Your task to perform on an android device: change the clock style Image 0: 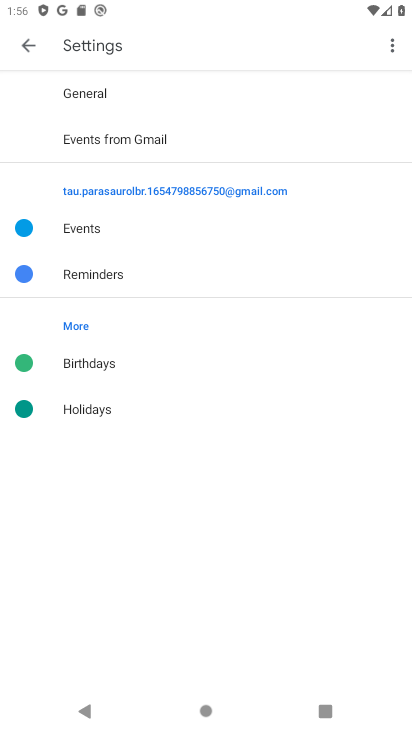
Step 0: click (27, 38)
Your task to perform on an android device: change the clock style Image 1: 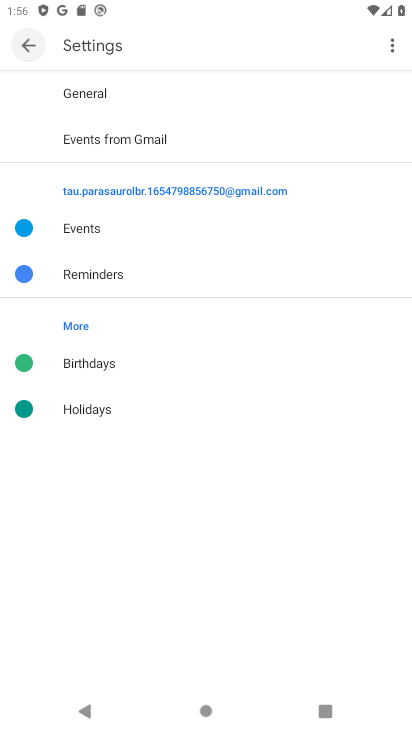
Step 1: click (32, 39)
Your task to perform on an android device: change the clock style Image 2: 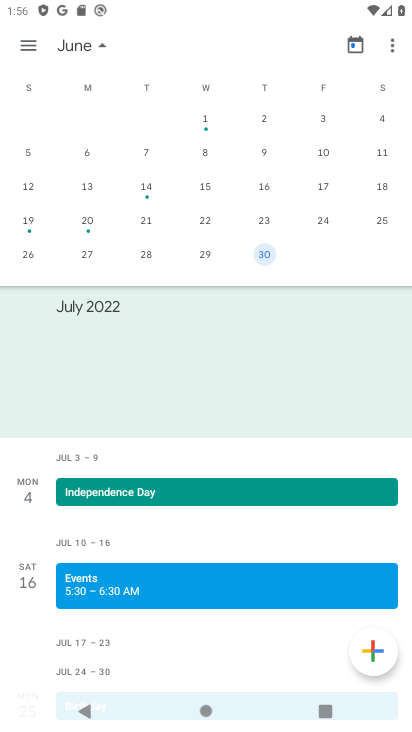
Step 2: press back button
Your task to perform on an android device: change the clock style Image 3: 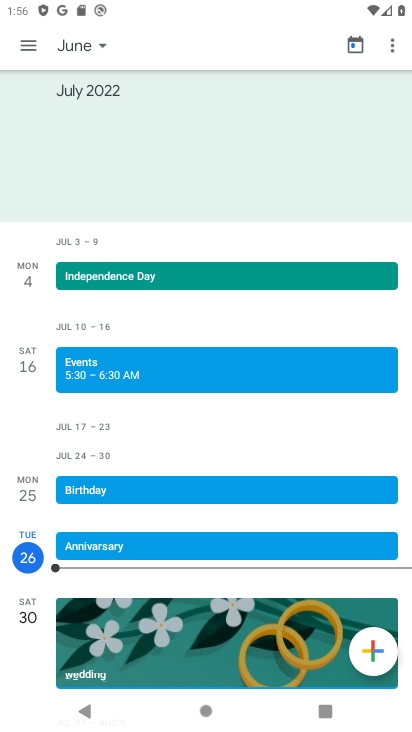
Step 3: drag from (111, 122) to (93, 394)
Your task to perform on an android device: change the clock style Image 4: 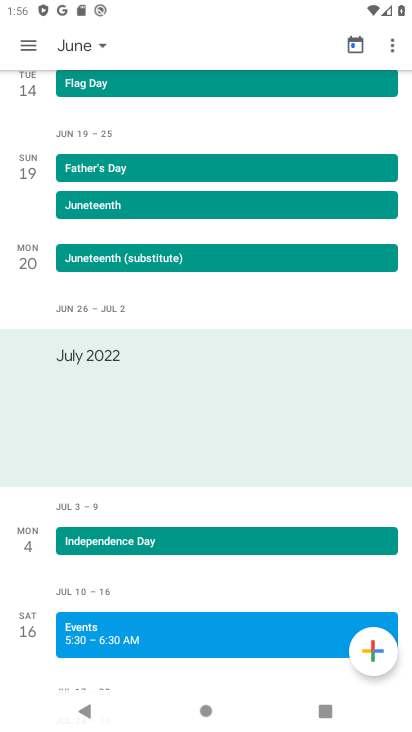
Step 4: drag from (100, 149) to (113, 434)
Your task to perform on an android device: change the clock style Image 5: 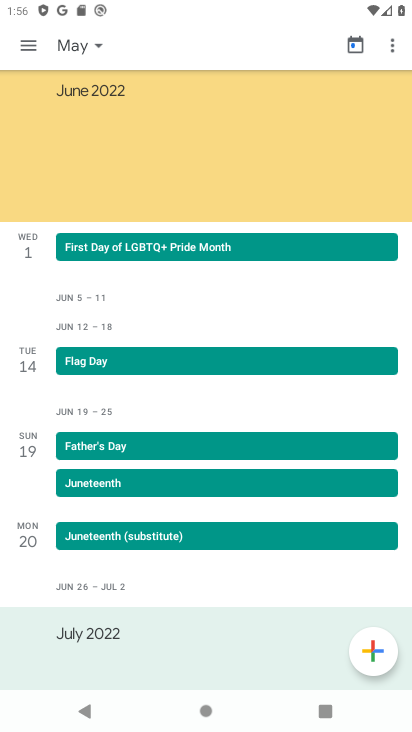
Step 5: drag from (132, 145) to (132, 374)
Your task to perform on an android device: change the clock style Image 6: 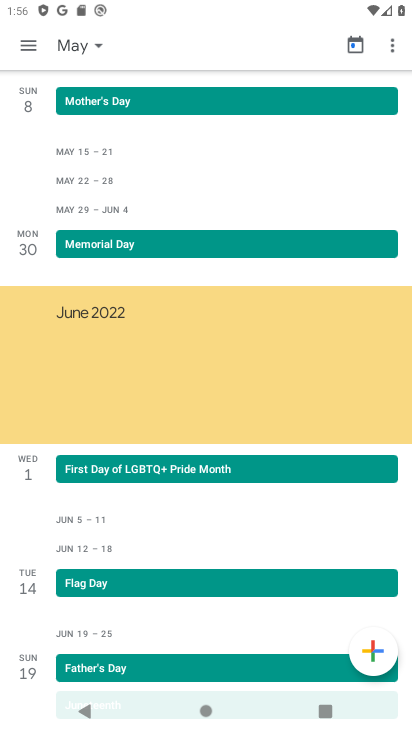
Step 6: drag from (118, 293) to (118, 483)
Your task to perform on an android device: change the clock style Image 7: 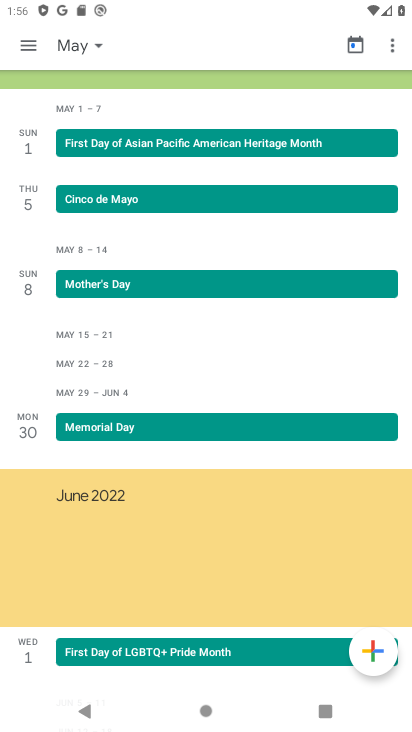
Step 7: drag from (142, 314) to (142, 591)
Your task to perform on an android device: change the clock style Image 8: 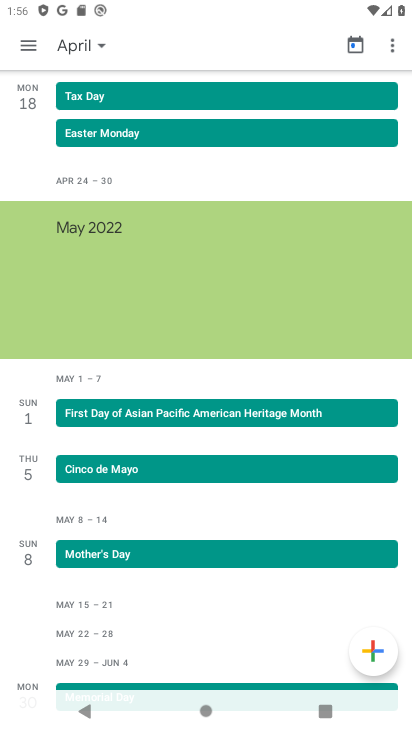
Step 8: press home button
Your task to perform on an android device: change the clock style Image 9: 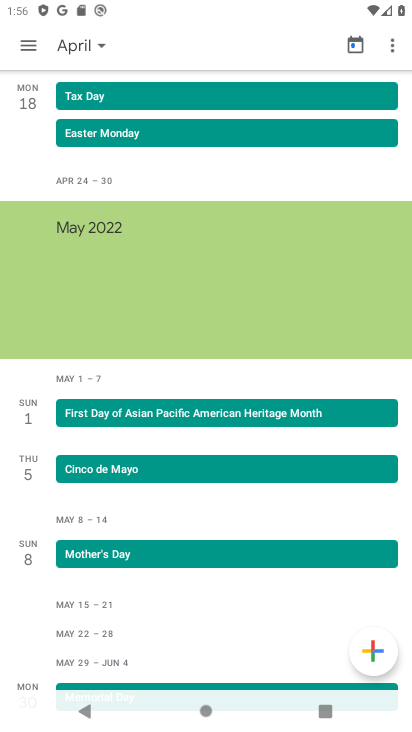
Step 9: press home button
Your task to perform on an android device: change the clock style Image 10: 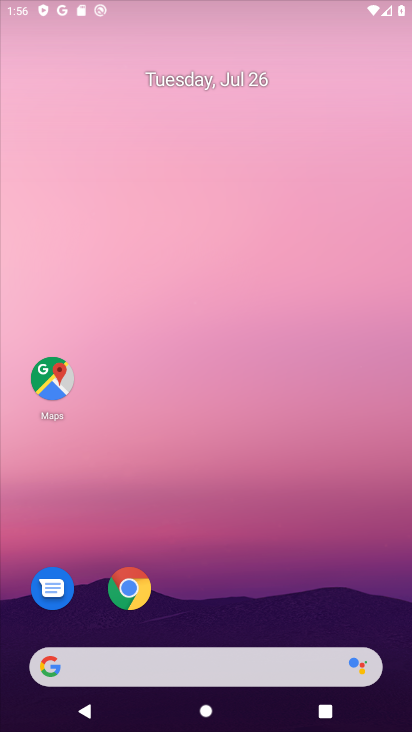
Step 10: press home button
Your task to perform on an android device: change the clock style Image 11: 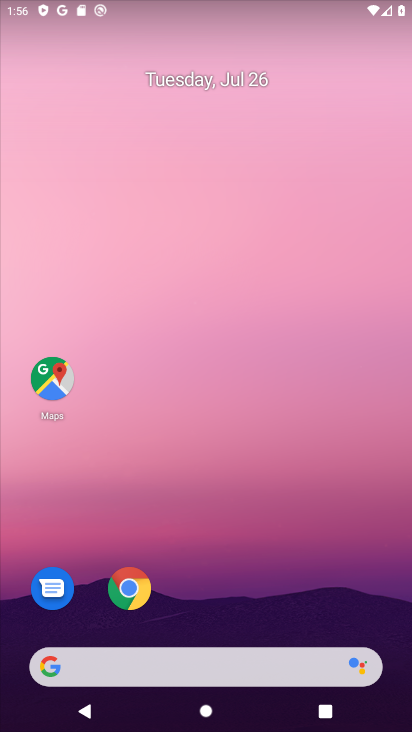
Step 11: drag from (183, 507) to (195, 5)
Your task to perform on an android device: change the clock style Image 12: 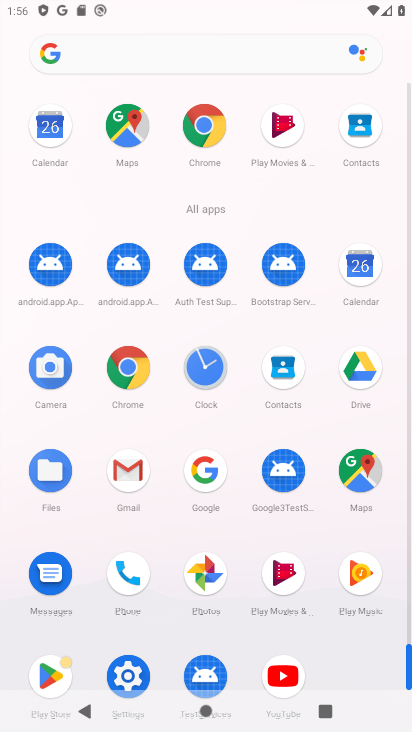
Step 12: click (196, 368)
Your task to perform on an android device: change the clock style Image 13: 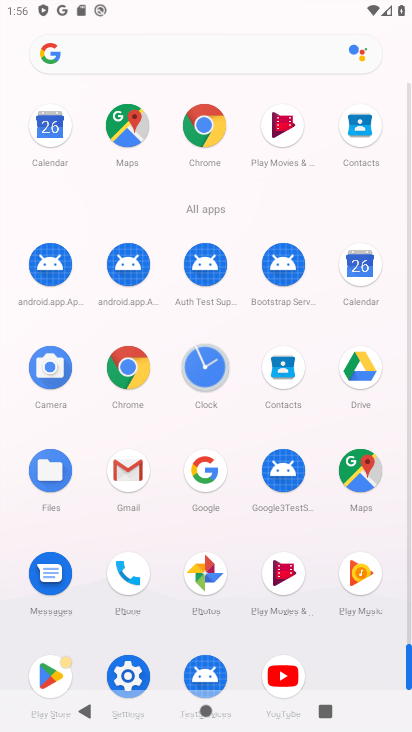
Step 13: click (204, 375)
Your task to perform on an android device: change the clock style Image 14: 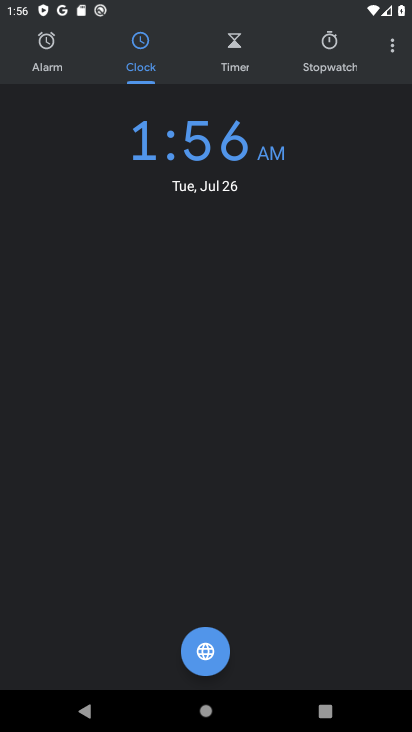
Step 14: click (385, 43)
Your task to perform on an android device: change the clock style Image 15: 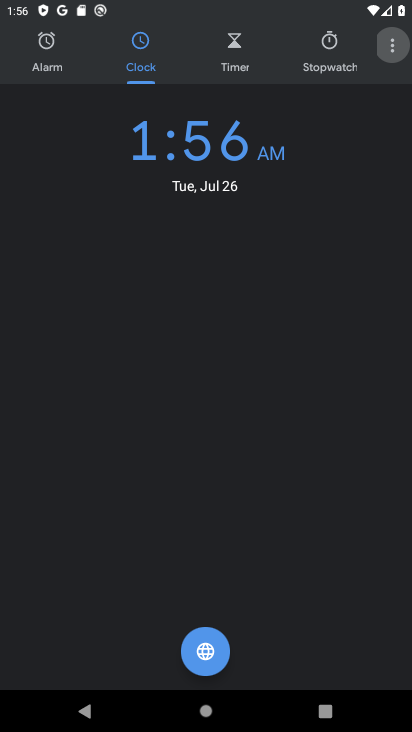
Step 15: click (385, 43)
Your task to perform on an android device: change the clock style Image 16: 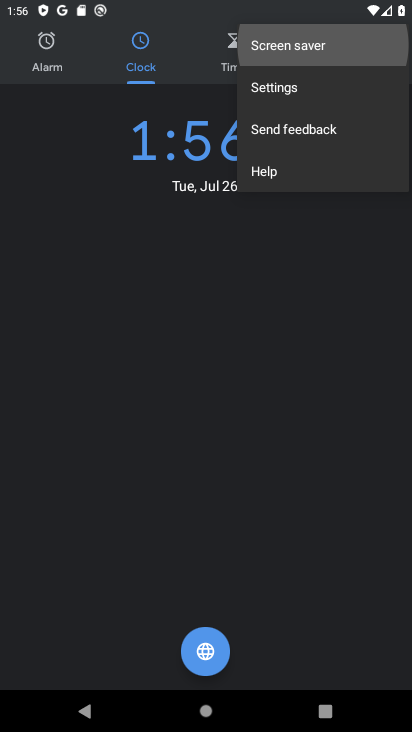
Step 16: click (386, 45)
Your task to perform on an android device: change the clock style Image 17: 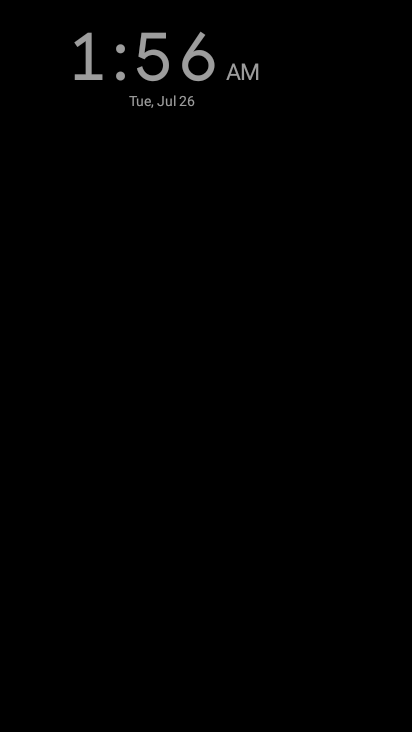
Step 17: press back button
Your task to perform on an android device: change the clock style Image 18: 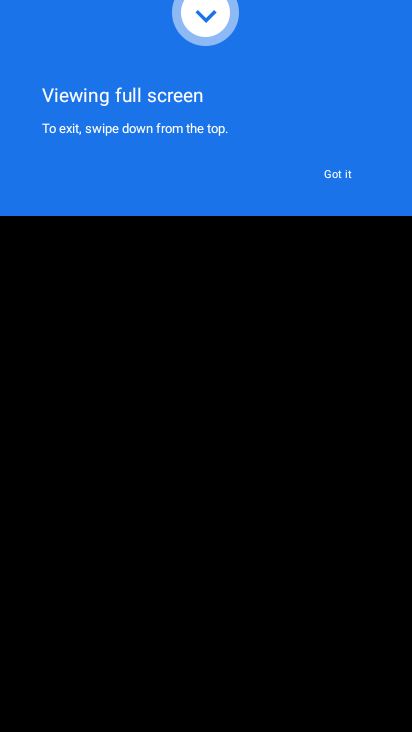
Step 18: click (302, 188)
Your task to perform on an android device: change the clock style Image 19: 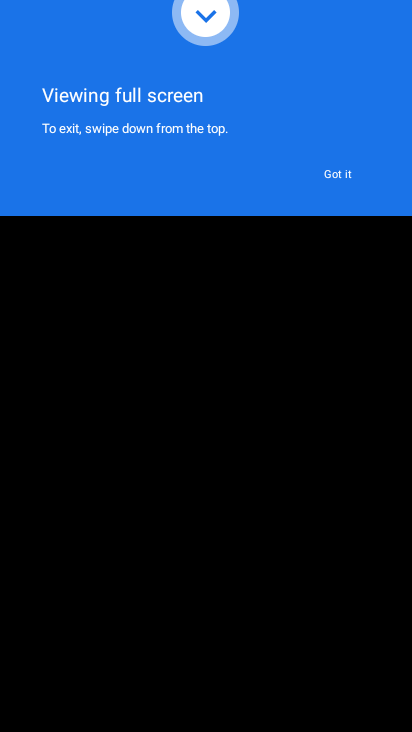
Step 19: click (326, 177)
Your task to perform on an android device: change the clock style Image 20: 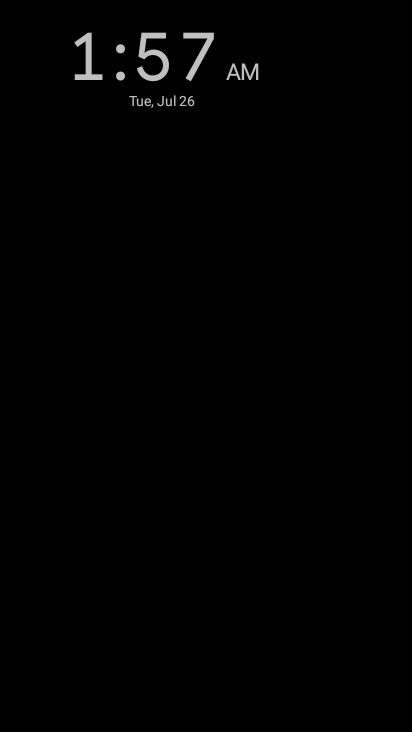
Step 20: click (330, 172)
Your task to perform on an android device: change the clock style Image 21: 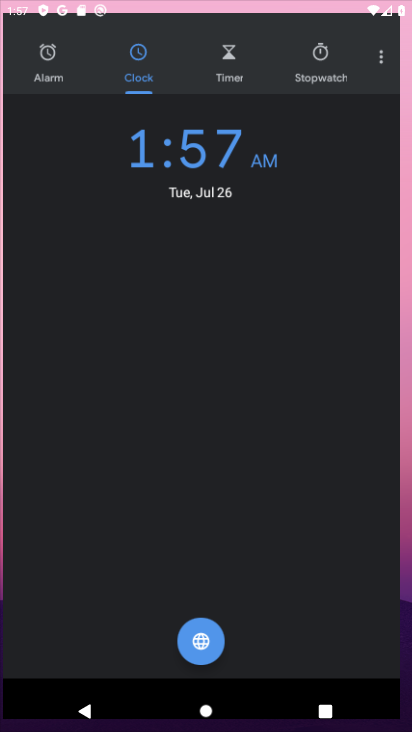
Step 21: click (332, 173)
Your task to perform on an android device: change the clock style Image 22: 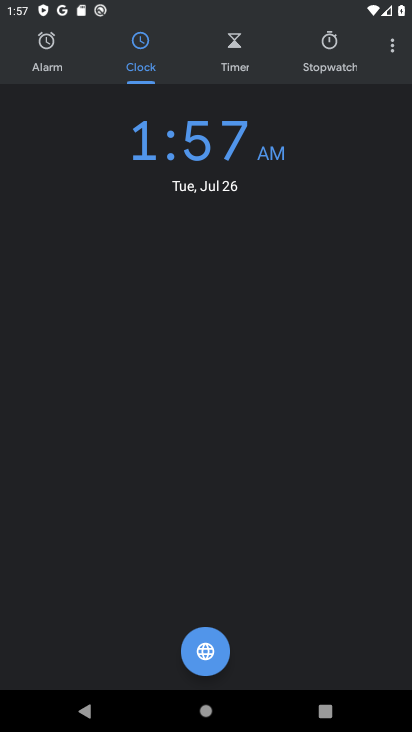
Step 22: click (391, 53)
Your task to perform on an android device: change the clock style Image 23: 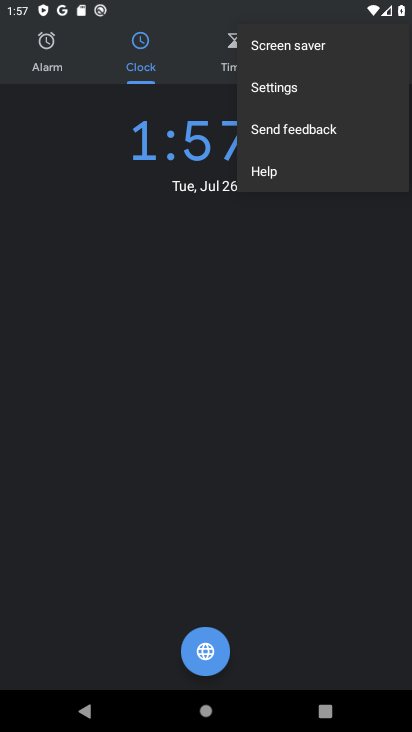
Step 23: click (273, 92)
Your task to perform on an android device: change the clock style Image 24: 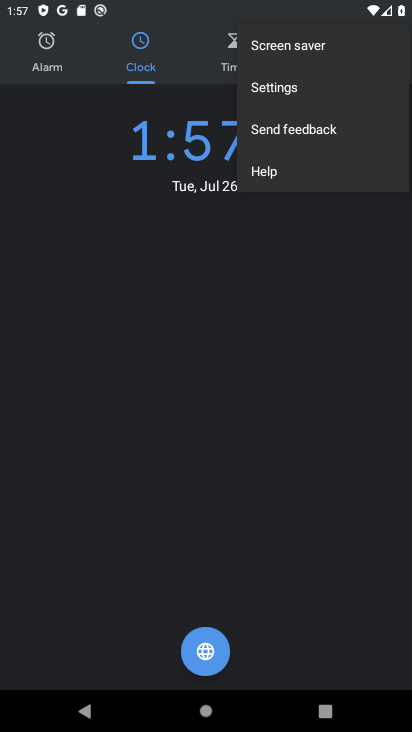
Step 24: click (267, 101)
Your task to perform on an android device: change the clock style Image 25: 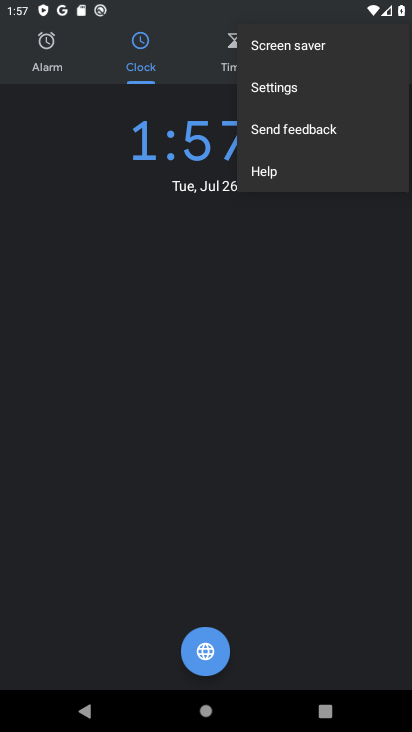
Step 25: click (267, 101)
Your task to perform on an android device: change the clock style Image 26: 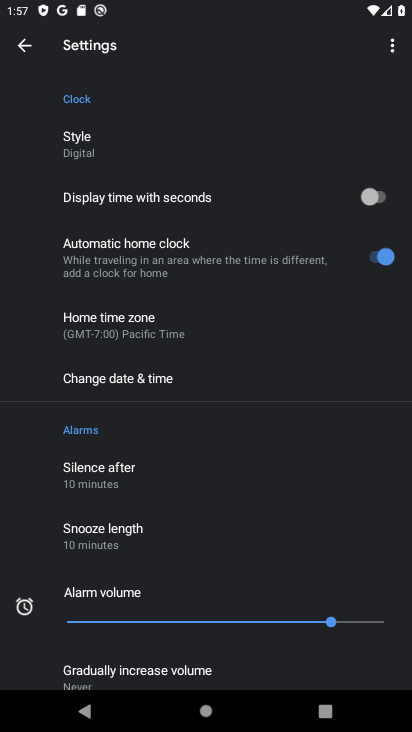
Step 26: click (108, 142)
Your task to perform on an android device: change the clock style Image 27: 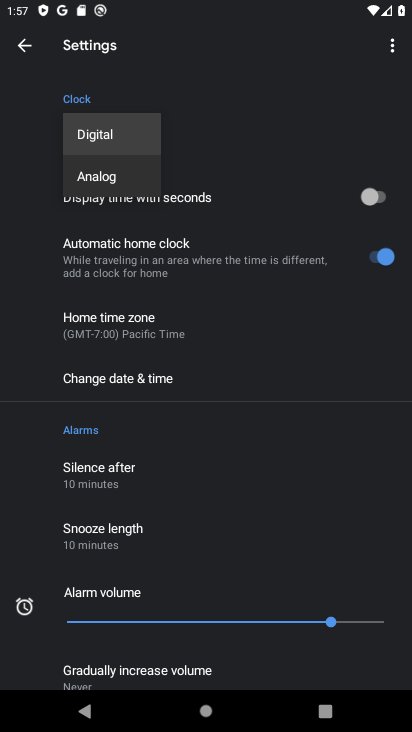
Step 27: click (109, 176)
Your task to perform on an android device: change the clock style Image 28: 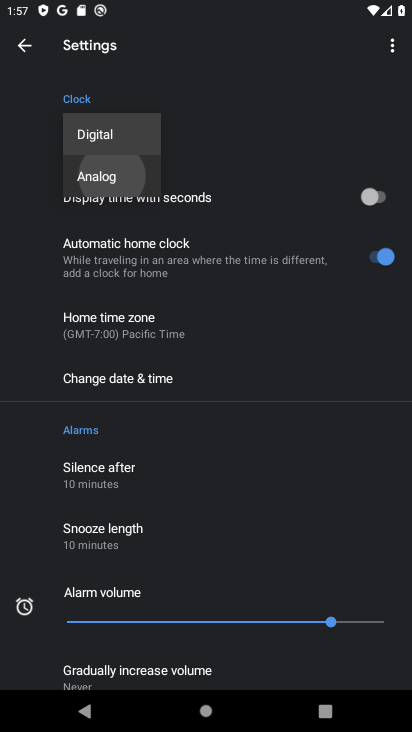
Step 28: click (109, 176)
Your task to perform on an android device: change the clock style Image 29: 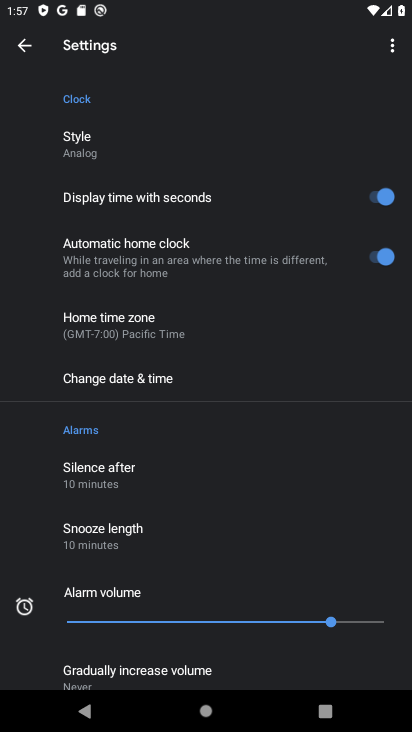
Step 29: task complete